Your task to perform on an android device: Go to Android settings Image 0: 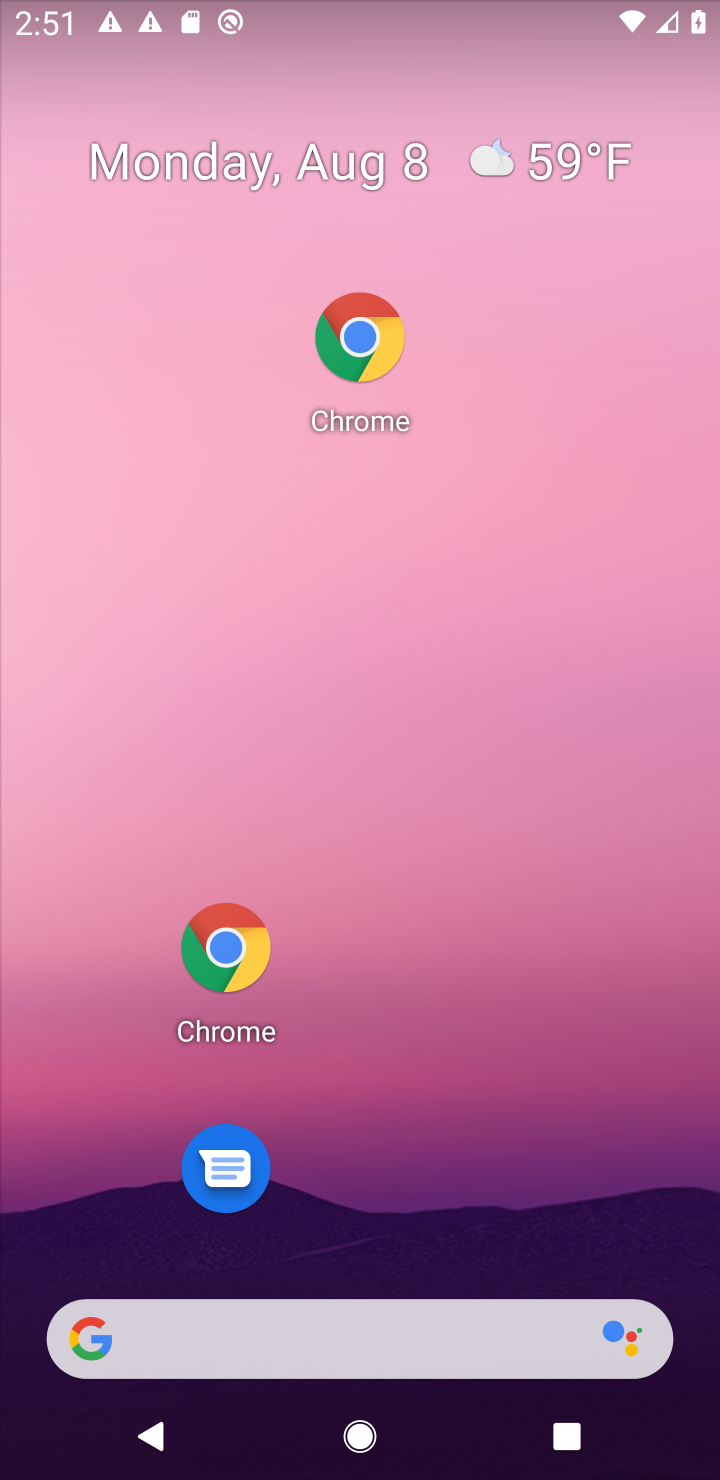
Step 0: drag from (458, 1248) to (402, 387)
Your task to perform on an android device: Go to Android settings Image 1: 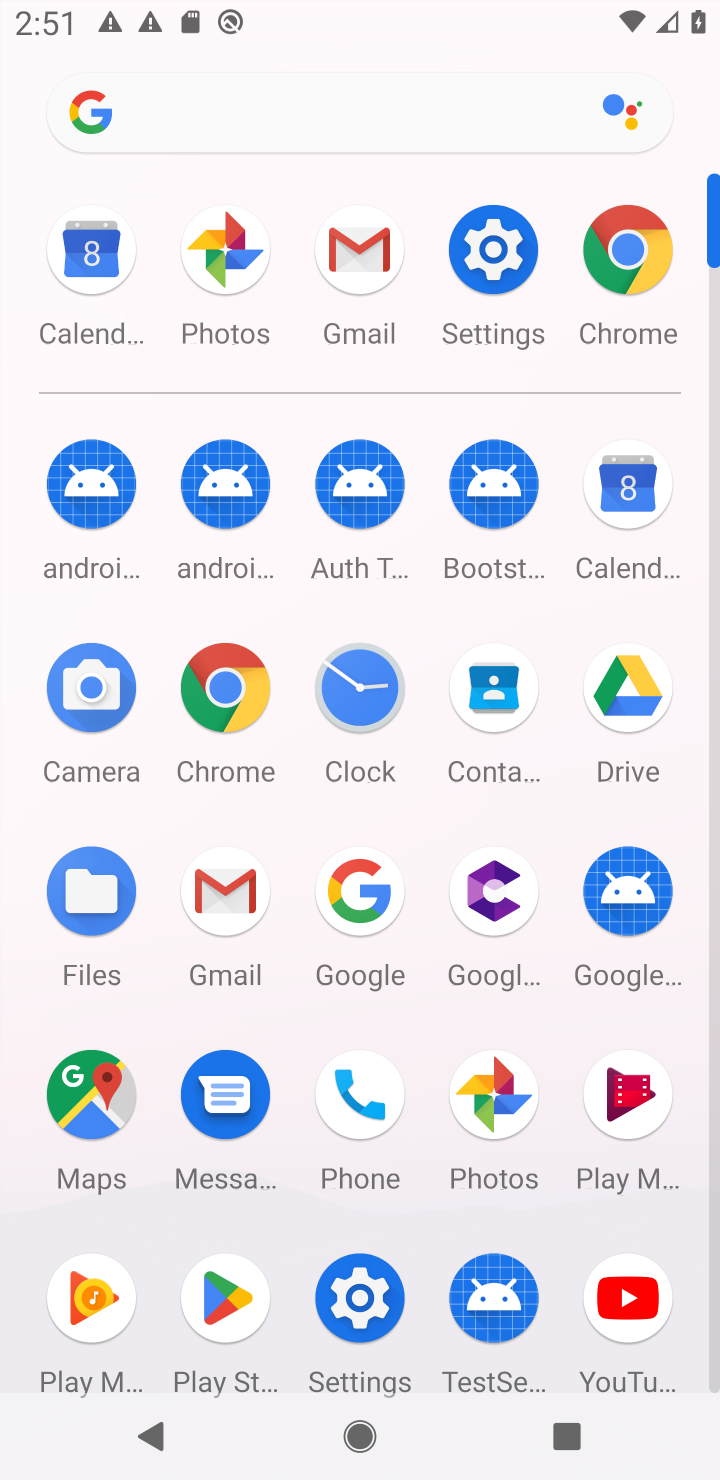
Step 1: click (489, 261)
Your task to perform on an android device: Go to Android settings Image 2: 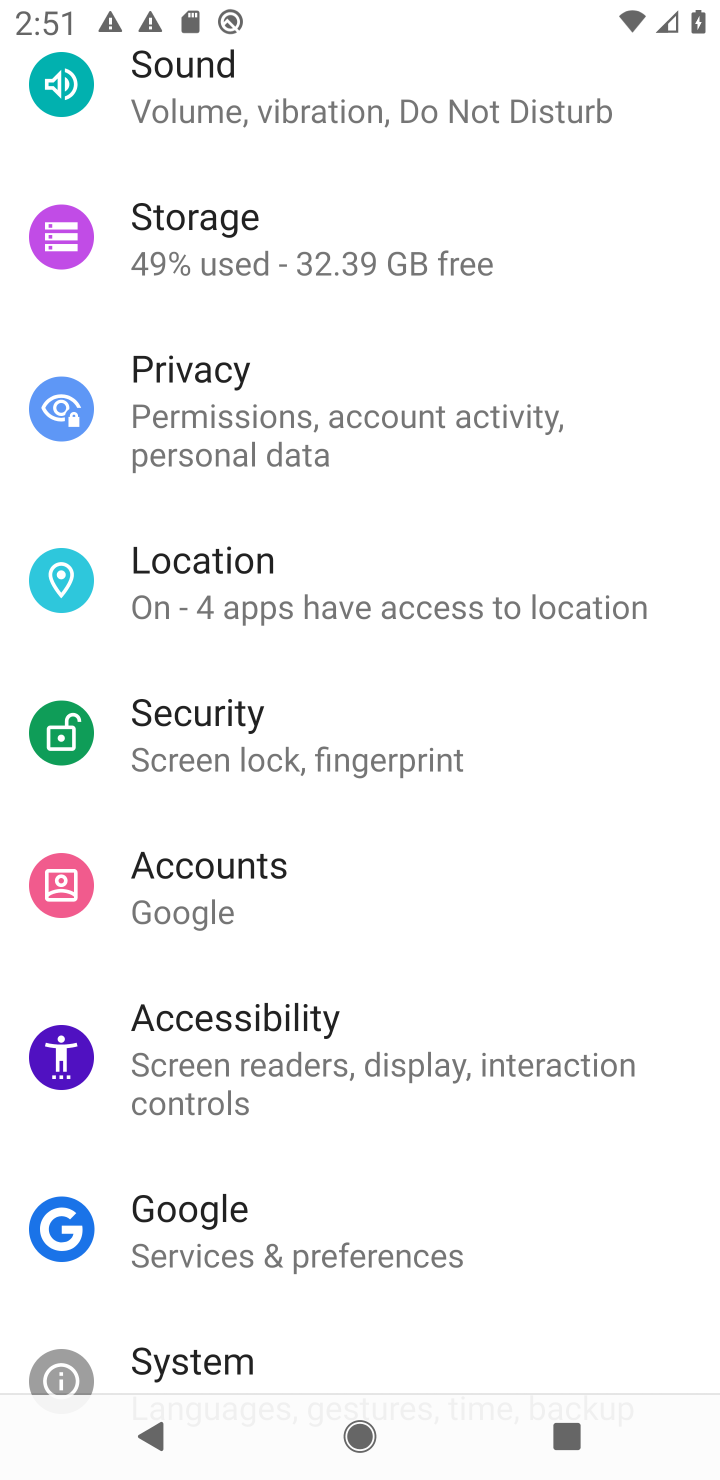
Step 2: drag from (276, 1021) to (287, 502)
Your task to perform on an android device: Go to Android settings Image 3: 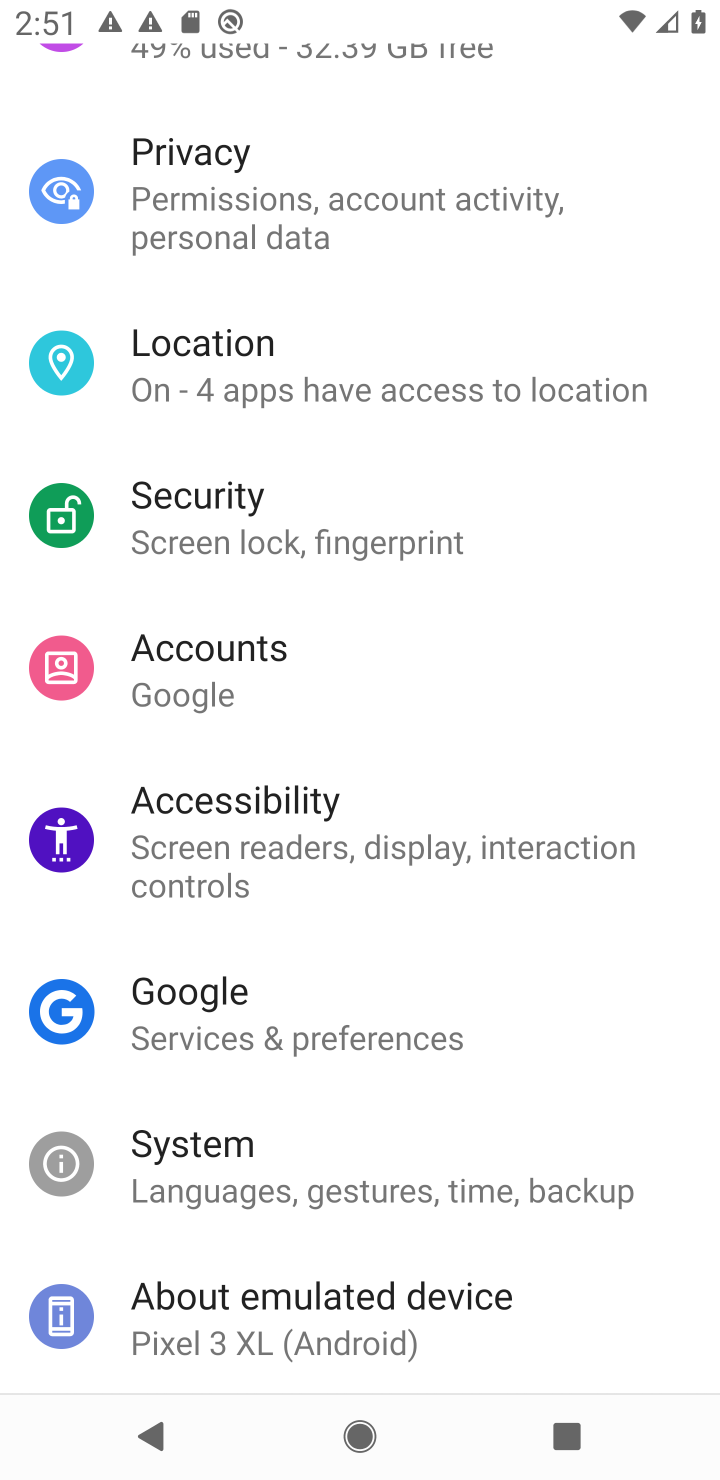
Step 3: click (365, 1143)
Your task to perform on an android device: Go to Android settings Image 4: 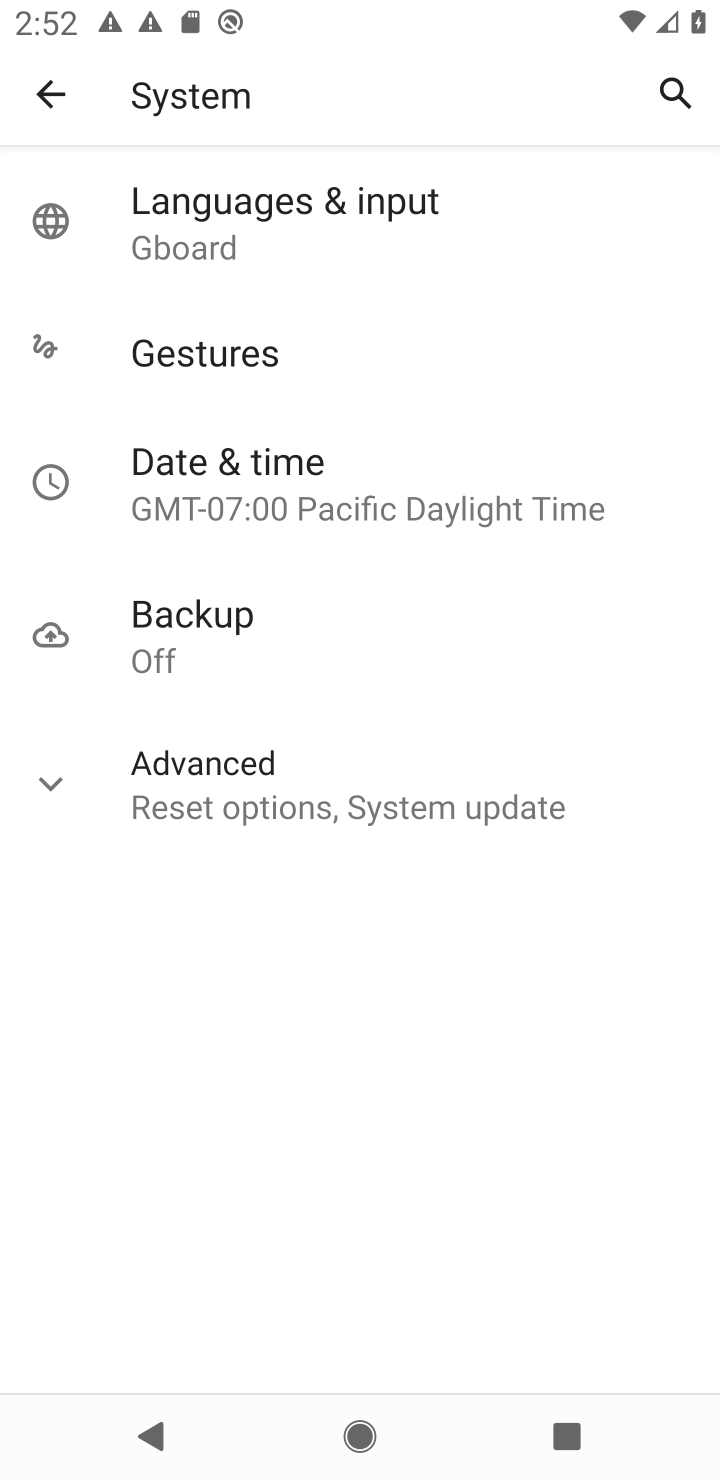
Step 4: task complete